Your task to perform on an android device: check the backup settings in the google photos Image 0: 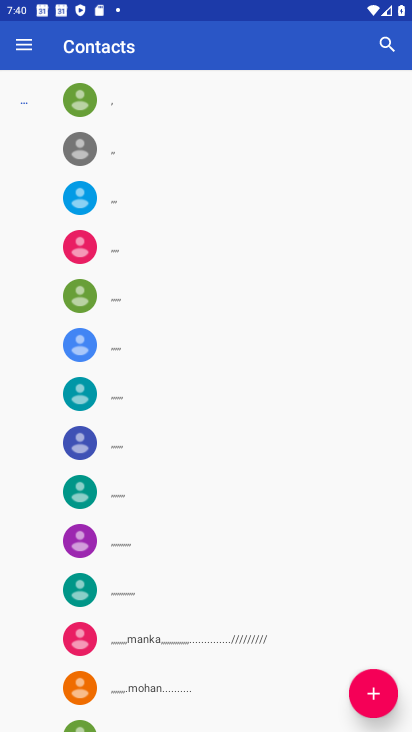
Step 0: press home button
Your task to perform on an android device: check the backup settings in the google photos Image 1: 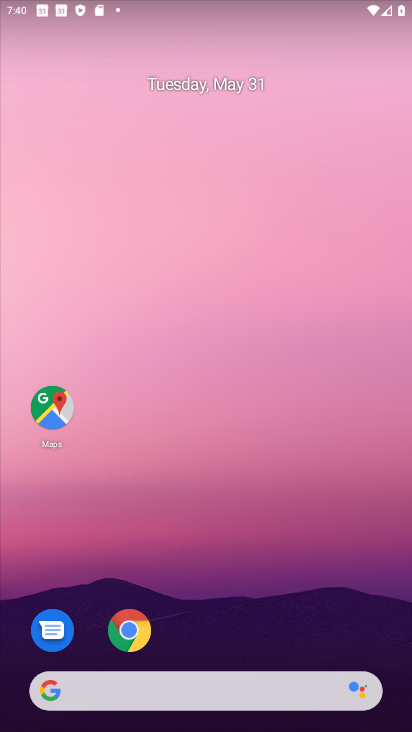
Step 1: drag from (203, 598) to (197, 250)
Your task to perform on an android device: check the backup settings in the google photos Image 2: 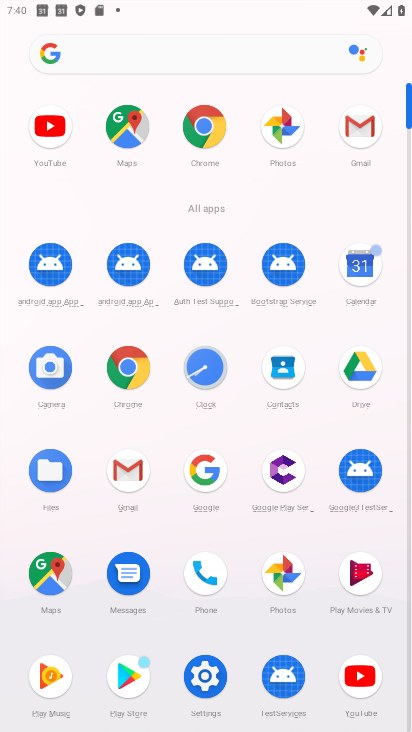
Step 2: click (280, 574)
Your task to perform on an android device: check the backup settings in the google photos Image 3: 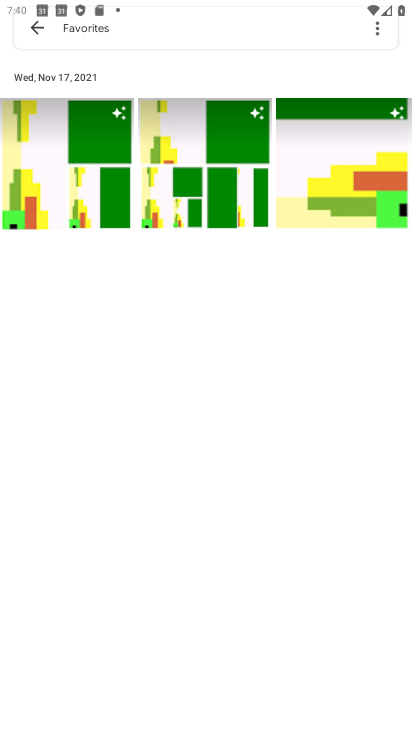
Step 3: click (28, 32)
Your task to perform on an android device: check the backup settings in the google photos Image 4: 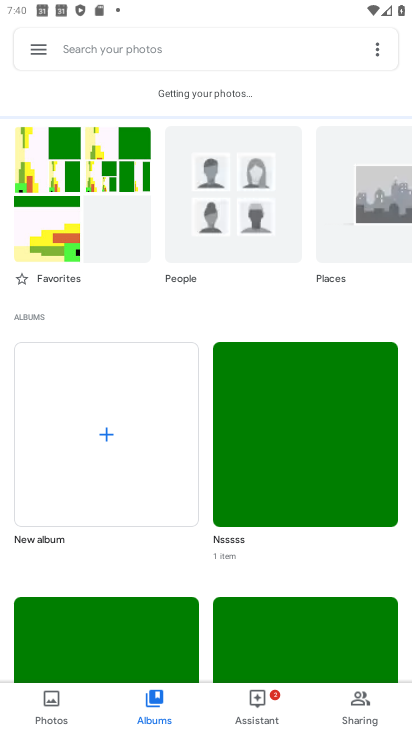
Step 4: click (28, 43)
Your task to perform on an android device: check the backup settings in the google photos Image 5: 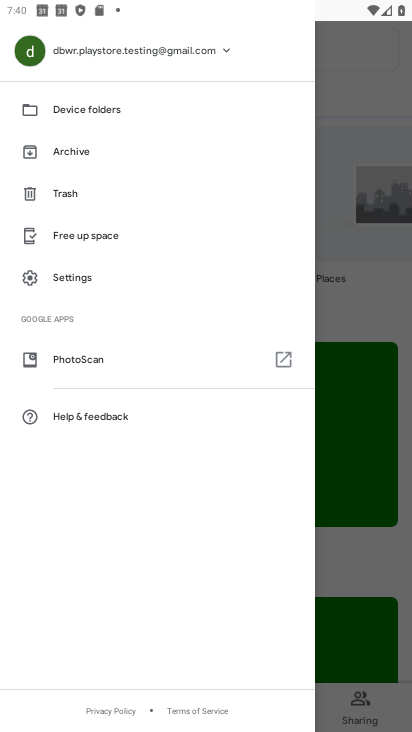
Step 5: click (88, 273)
Your task to perform on an android device: check the backup settings in the google photos Image 6: 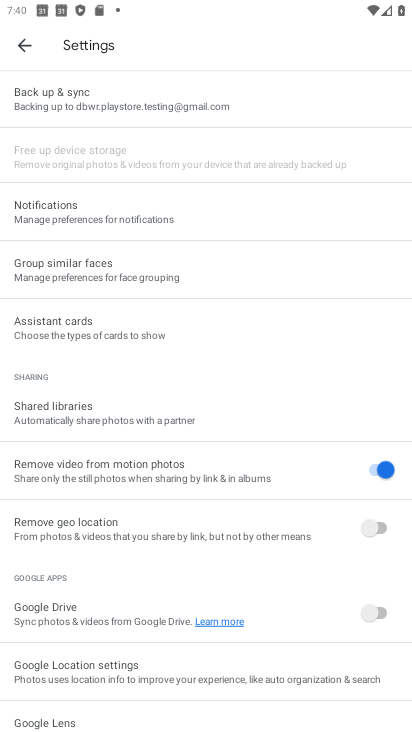
Step 6: click (143, 91)
Your task to perform on an android device: check the backup settings in the google photos Image 7: 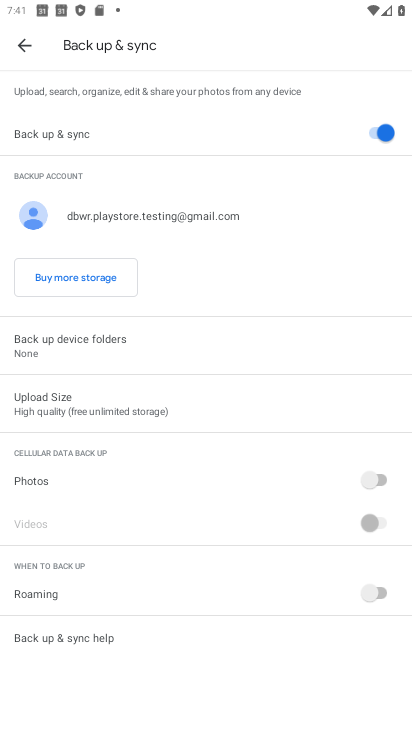
Step 7: task complete